Your task to perform on an android device: Do I have any events this weekend? Image 0: 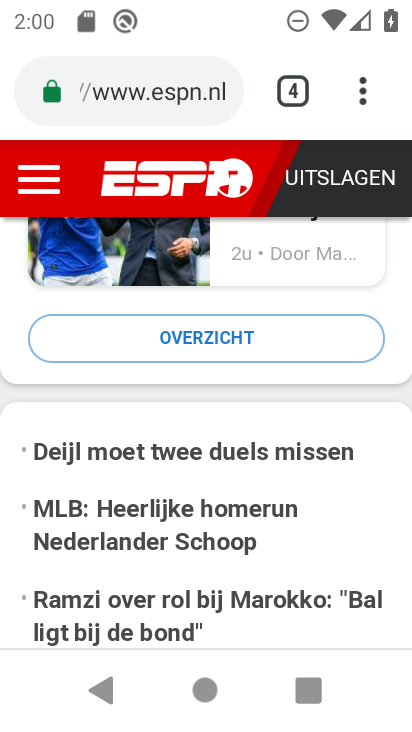
Step 0: press home button
Your task to perform on an android device: Do I have any events this weekend? Image 1: 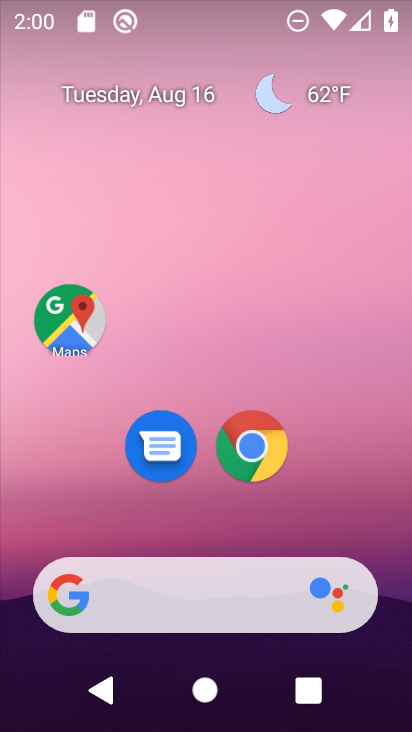
Step 1: drag from (213, 532) to (221, 117)
Your task to perform on an android device: Do I have any events this weekend? Image 2: 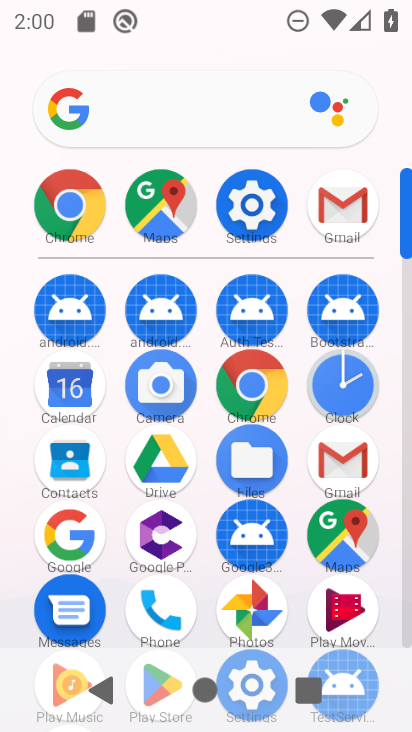
Step 2: click (71, 378)
Your task to perform on an android device: Do I have any events this weekend? Image 3: 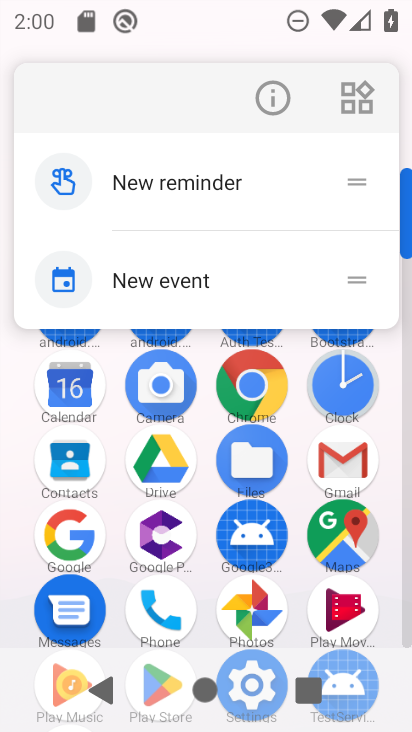
Step 3: click (71, 383)
Your task to perform on an android device: Do I have any events this weekend? Image 4: 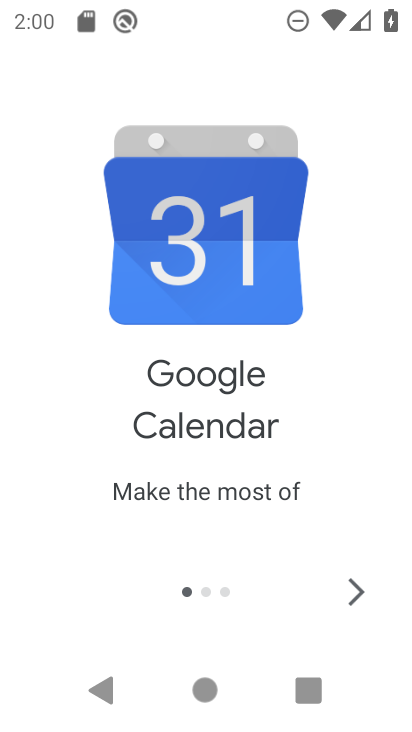
Step 4: click (351, 586)
Your task to perform on an android device: Do I have any events this weekend? Image 5: 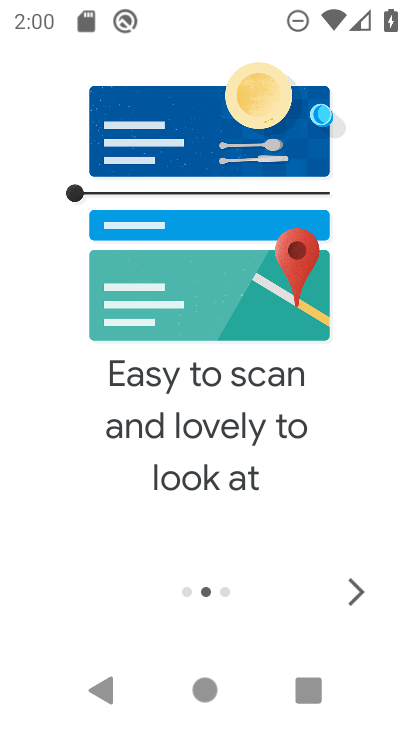
Step 5: click (351, 586)
Your task to perform on an android device: Do I have any events this weekend? Image 6: 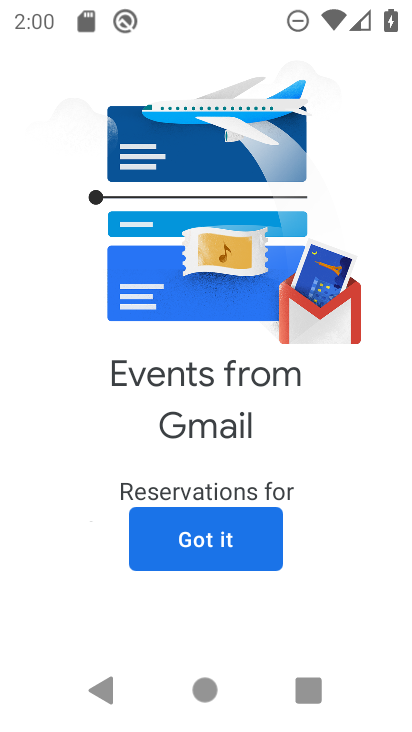
Step 6: click (216, 545)
Your task to perform on an android device: Do I have any events this weekend? Image 7: 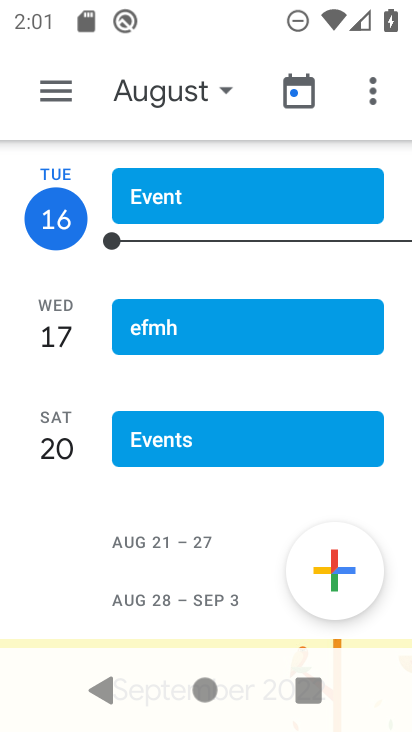
Step 7: click (56, 86)
Your task to perform on an android device: Do I have any events this weekend? Image 8: 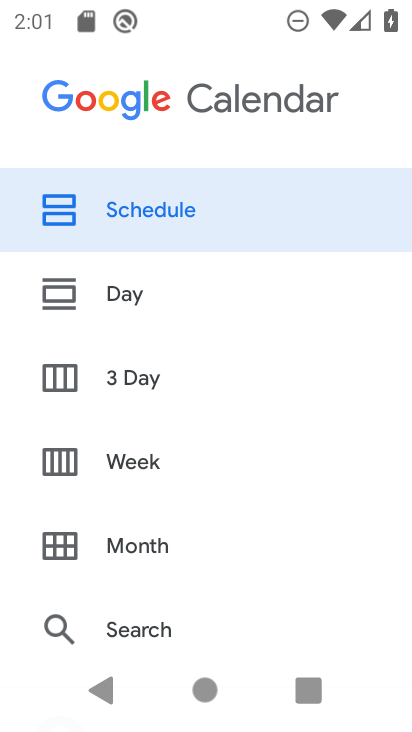
Step 8: click (106, 455)
Your task to perform on an android device: Do I have any events this weekend? Image 9: 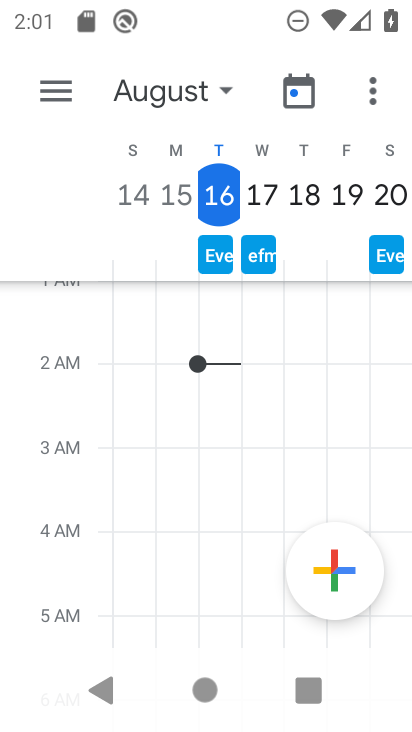
Step 9: click (46, 94)
Your task to perform on an android device: Do I have any events this weekend? Image 10: 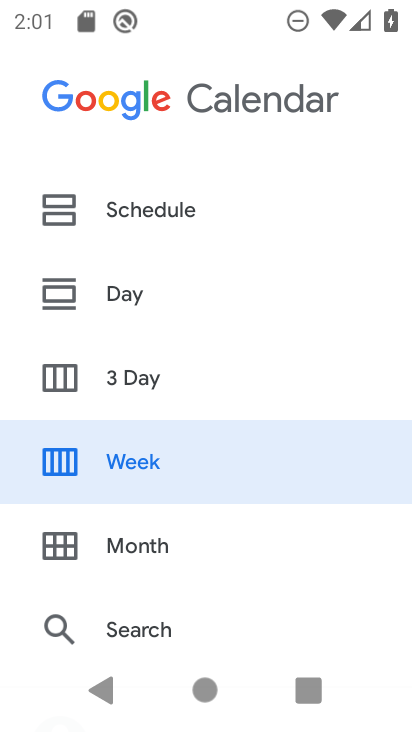
Step 10: drag from (140, 581) to (154, 97)
Your task to perform on an android device: Do I have any events this weekend? Image 11: 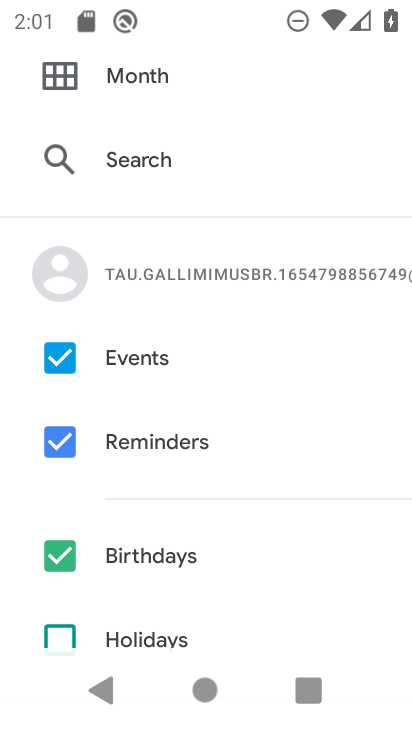
Step 11: click (61, 430)
Your task to perform on an android device: Do I have any events this weekend? Image 12: 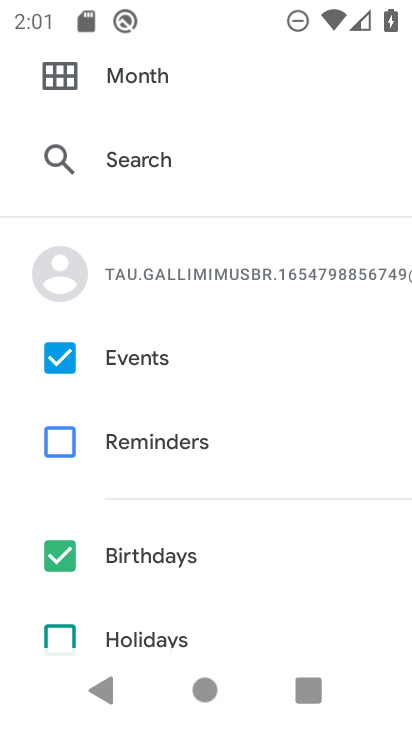
Step 12: click (57, 562)
Your task to perform on an android device: Do I have any events this weekend? Image 13: 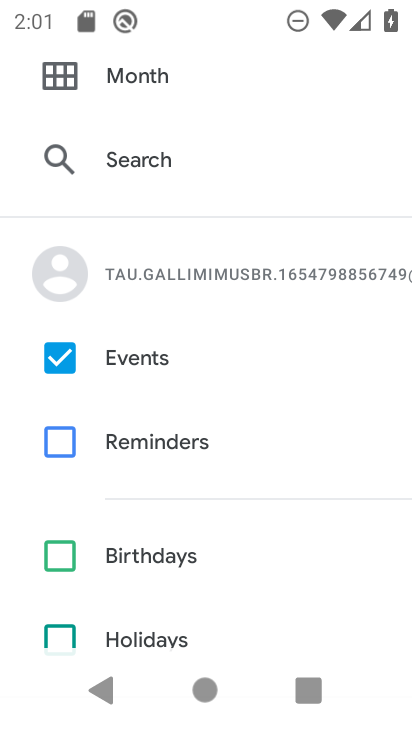
Step 13: drag from (104, 137) to (128, 668)
Your task to perform on an android device: Do I have any events this weekend? Image 14: 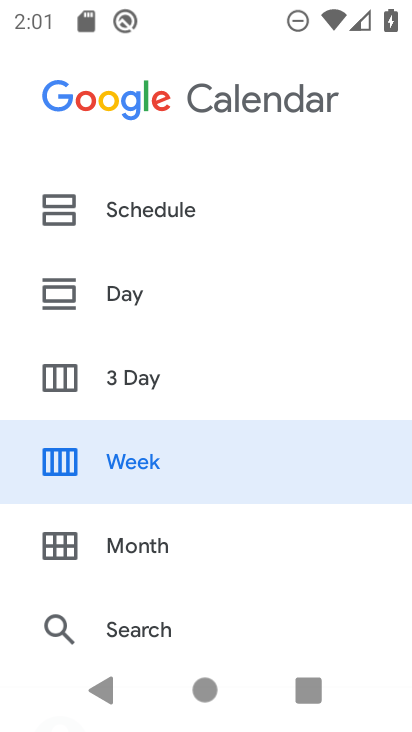
Step 14: click (89, 209)
Your task to perform on an android device: Do I have any events this weekend? Image 15: 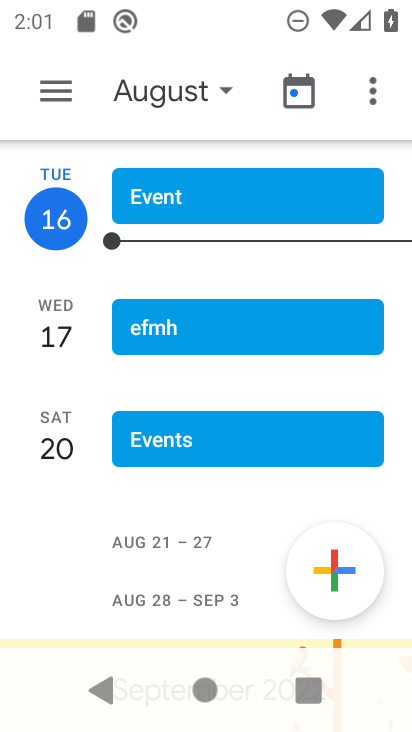
Step 15: task complete